Your task to perform on an android device: move an email to a new category in the gmail app Image 0: 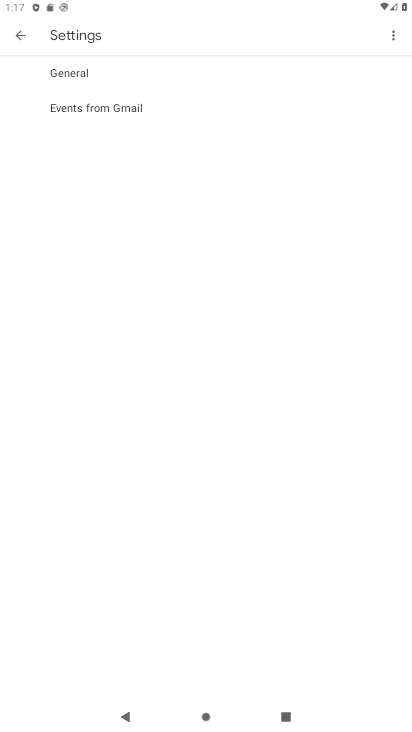
Step 0: press home button
Your task to perform on an android device: move an email to a new category in the gmail app Image 1: 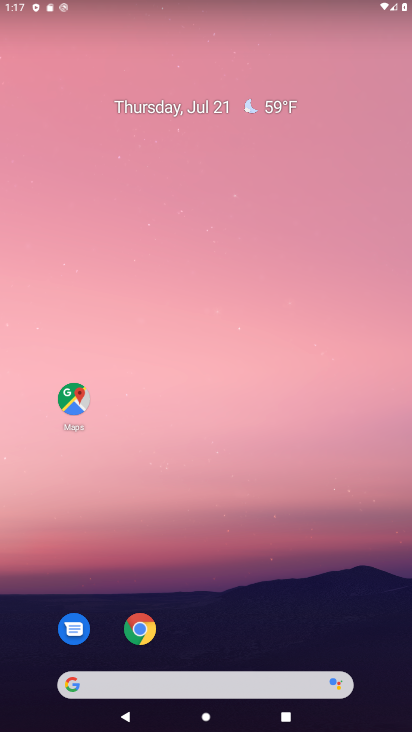
Step 1: drag from (259, 616) to (223, 75)
Your task to perform on an android device: move an email to a new category in the gmail app Image 2: 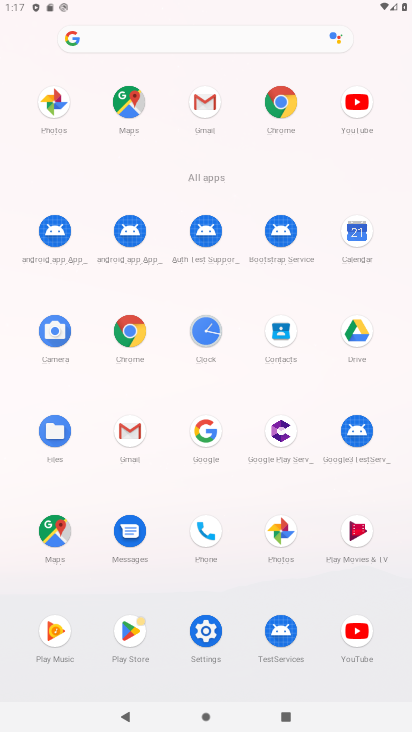
Step 2: click (204, 110)
Your task to perform on an android device: move an email to a new category in the gmail app Image 3: 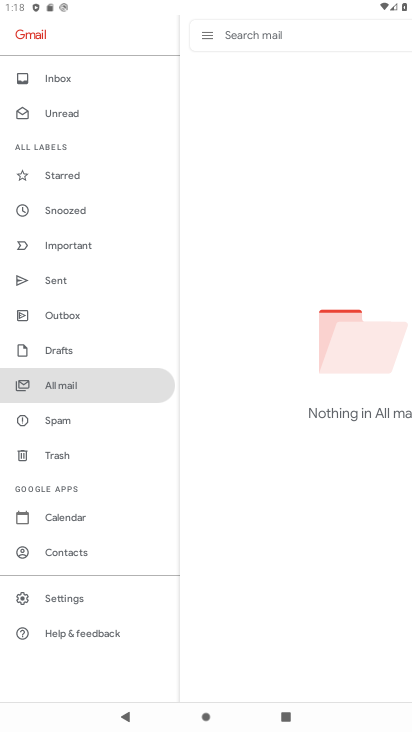
Step 3: click (89, 385)
Your task to perform on an android device: move an email to a new category in the gmail app Image 4: 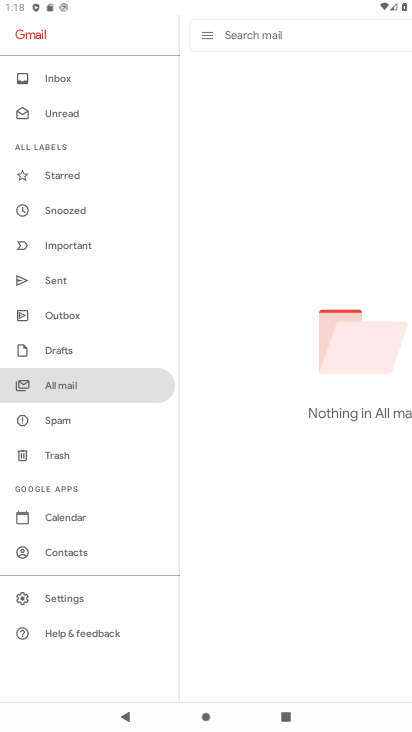
Step 4: task complete